Your task to perform on an android device: Add lg ultragear to the cart on costco.com Image 0: 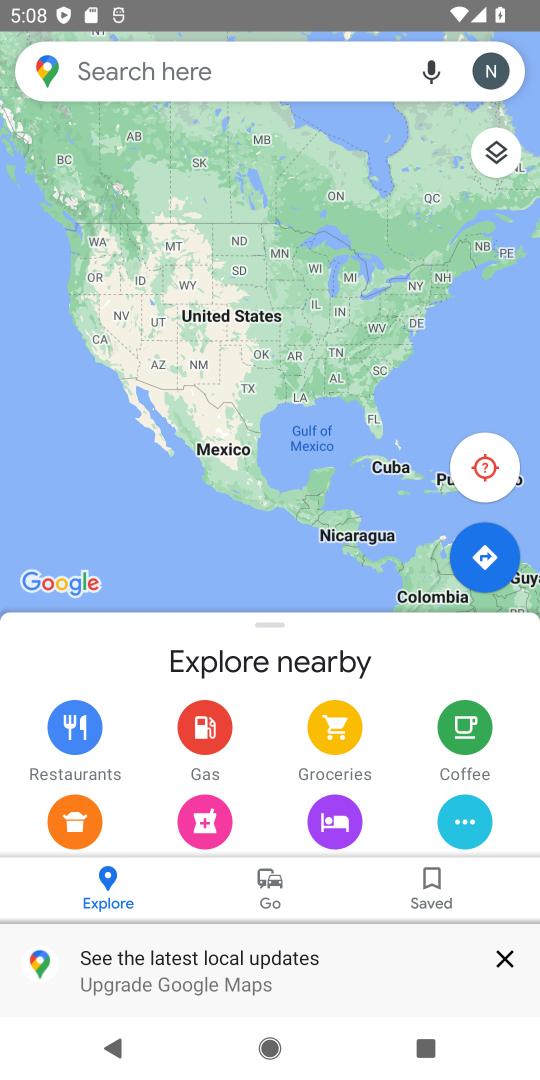
Step 0: press home button
Your task to perform on an android device: Add lg ultragear to the cart on costco.com Image 1: 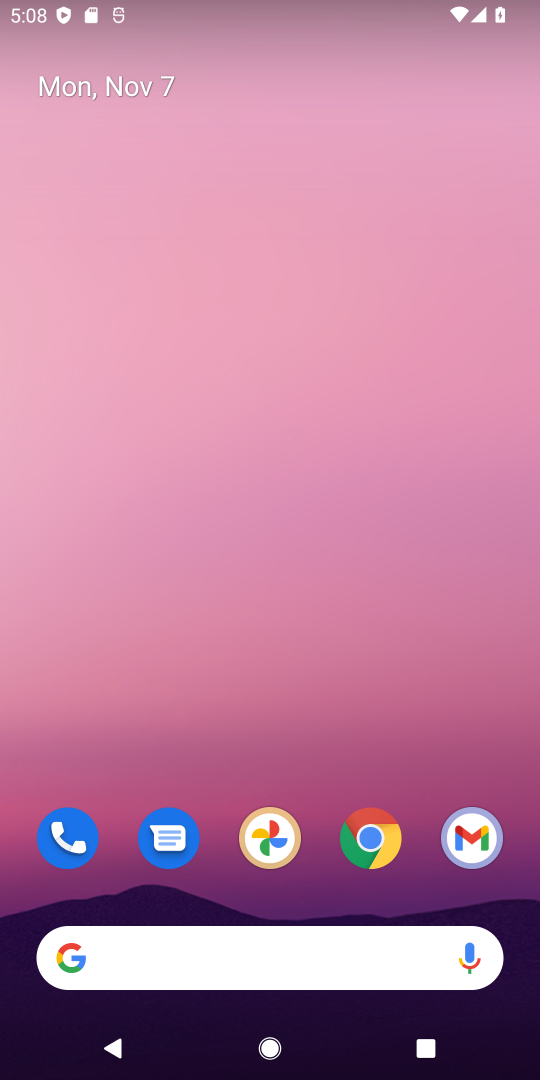
Step 1: click (346, 852)
Your task to perform on an android device: Add lg ultragear to the cart on costco.com Image 2: 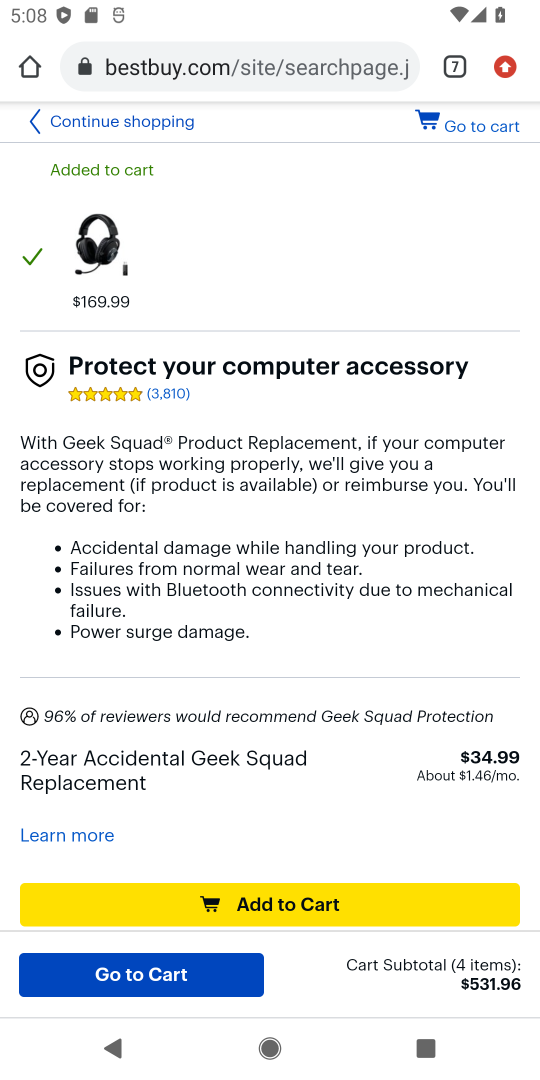
Step 2: click (457, 71)
Your task to perform on an android device: Add lg ultragear to the cart on costco.com Image 3: 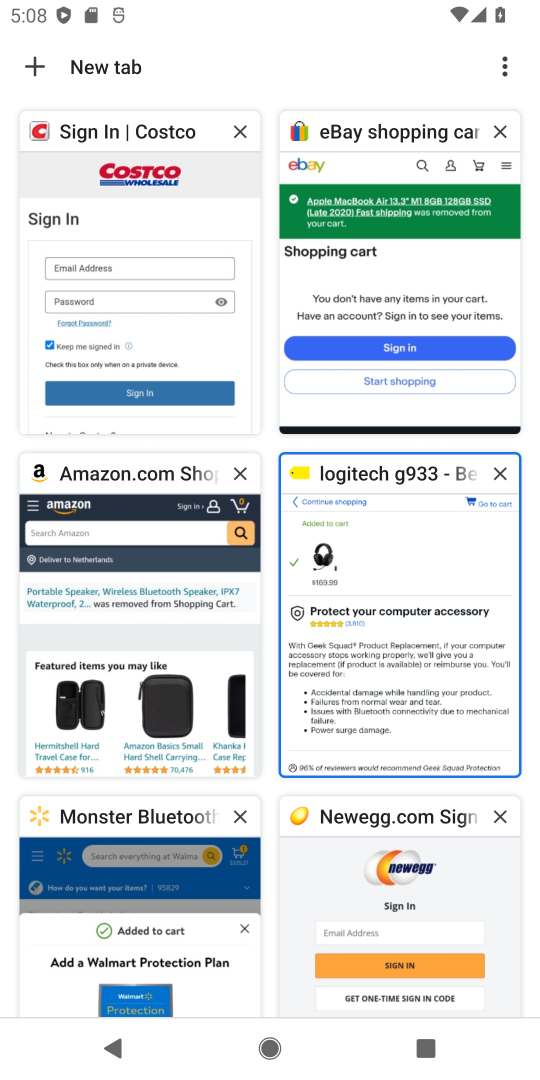
Step 3: click (141, 290)
Your task to perform on an android device: Add lg ultragear to the cart on costco.com Image 4: 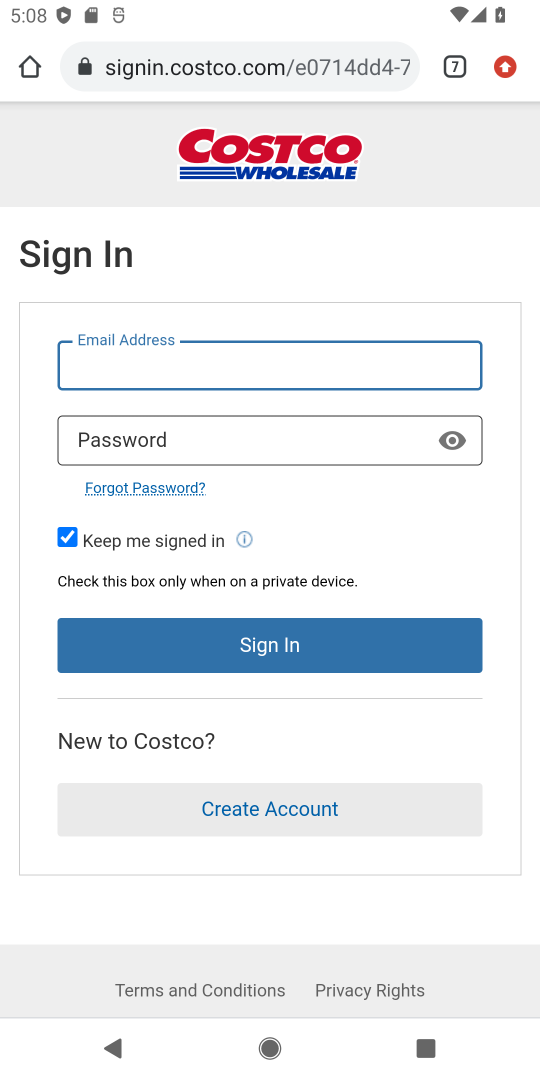
Step 4: press back button
Your task to perform on an android device: Add lg ultragear to the cart on costco.com Image 5: 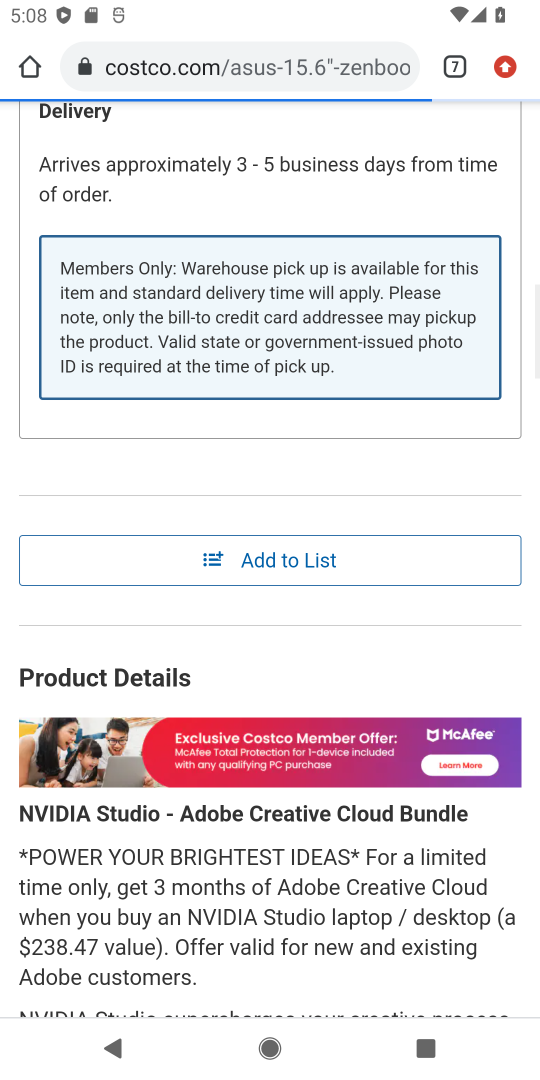
Step 5: drag from (365, 171) to (213, 1024)
Your task to perform on an android device: Add lg ultragear to the cart on costco.com Image 6: 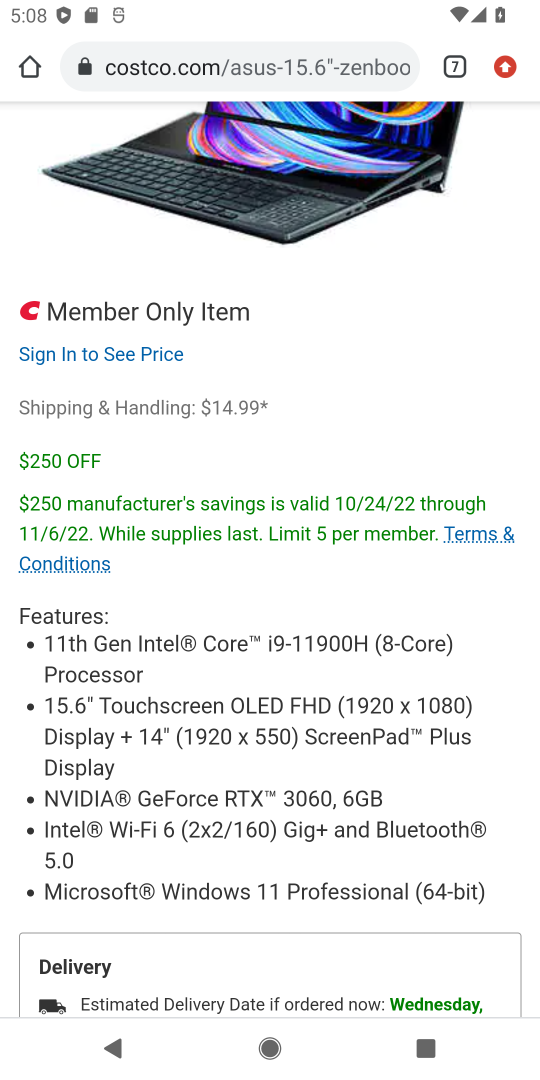
Step 6: drag from (242, 182) to (52, 1078)
Your task to perform on an android device: Add lg ultragear to the cart on costco.com Image 7: 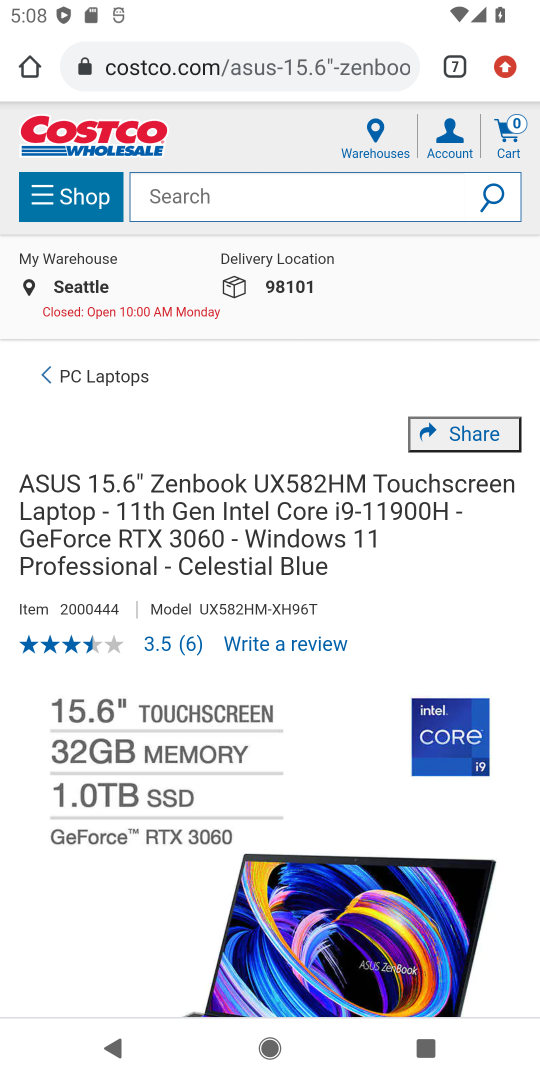
Step 7: click (203, 192)
Your task to perform on an android device: Add lg ultragear to the cart on costco.com Image 8: 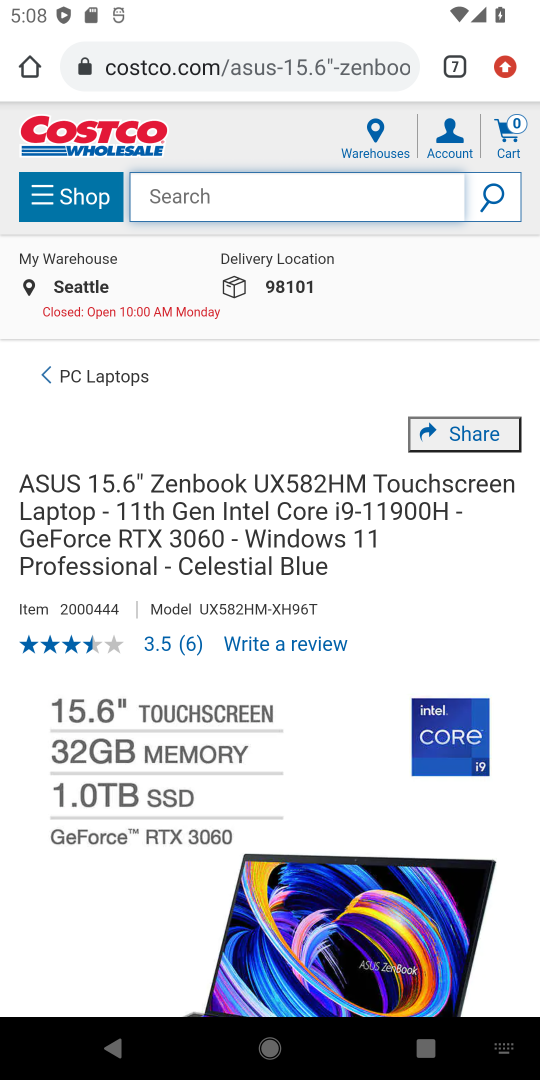
Step 8: type "lg ultragear"
Your task to perform on an android device: Add lg ultragear to the cart on costco.com Image 9: 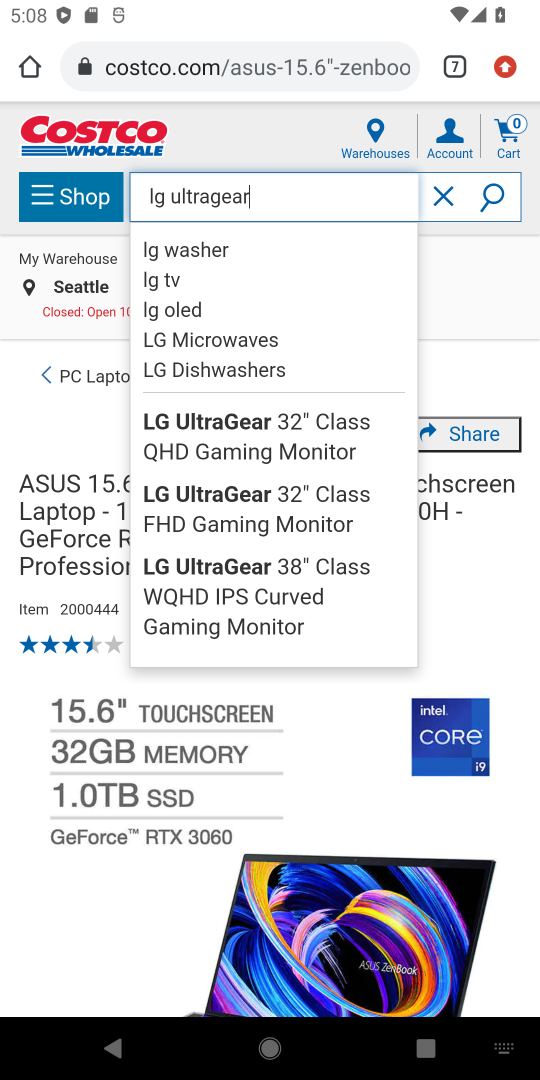
Step 9: click (192, 425)
Your task to perform on an android device: Add lg ultragear to the cart on costco.com Image 10: 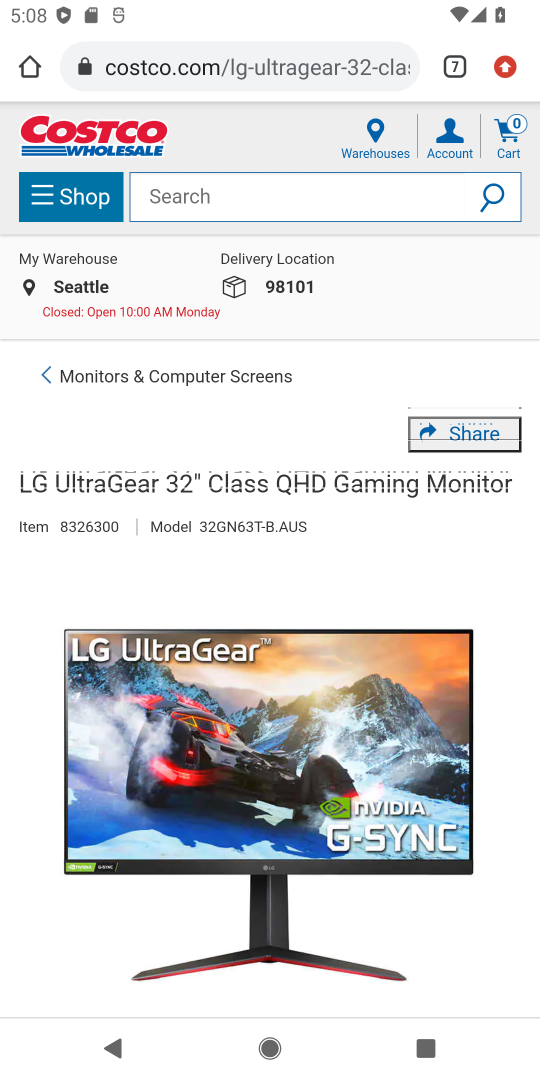
Step 10: drag from (246, 819) to (349, 294)
Your task to perform on an android device: Add lg ultragear to the cart on costco.com Image 11: 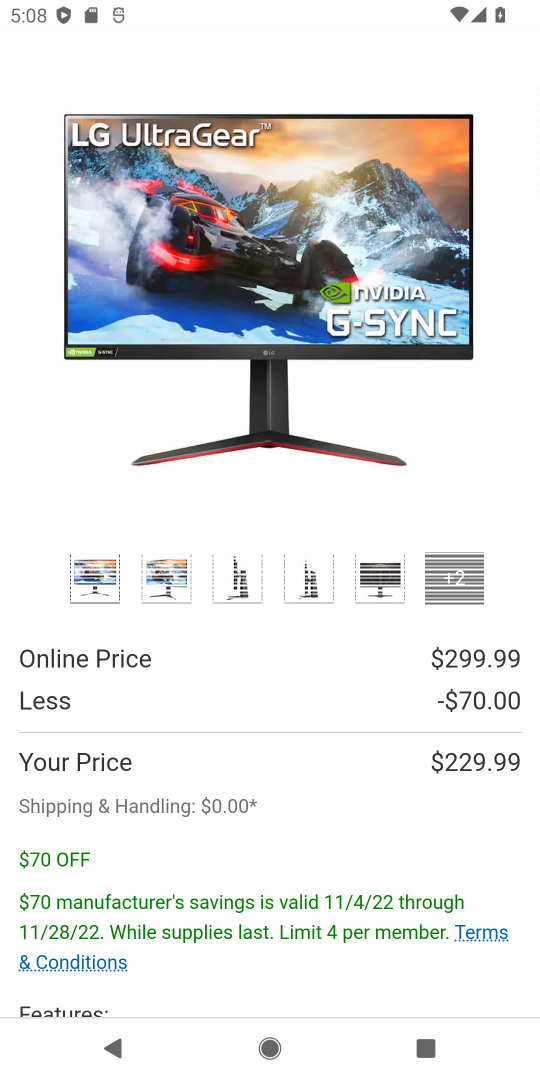
Step 11: drag from (246, 953) to (349, 362)
Your task to perform on an android device: Add lg ultragear to the cart on costco.com Image 12: 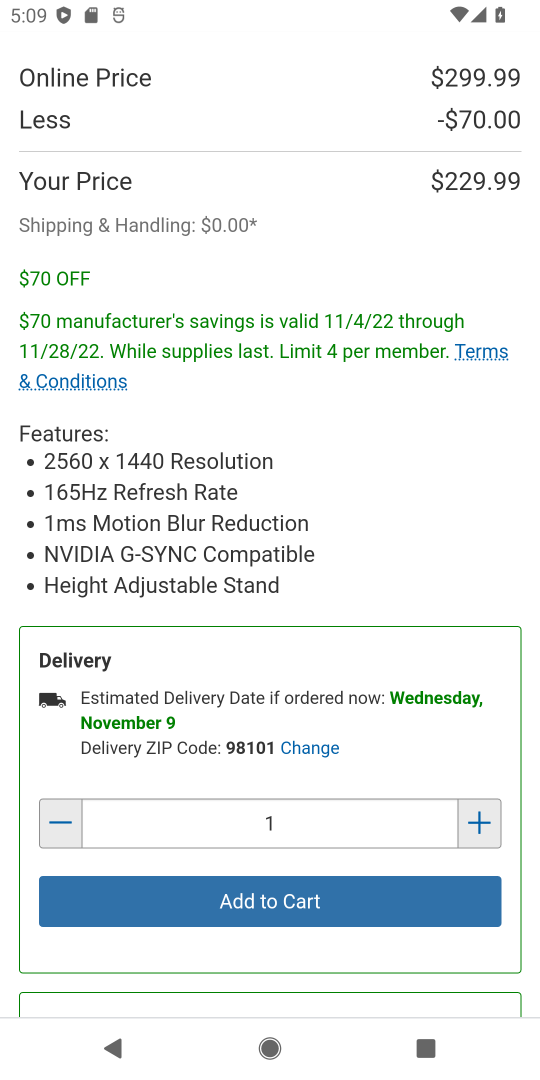
Step 12: click (296, 895)
Your task to perform on an android device: Add lg ultragear to the cart on costco.com Image 13: 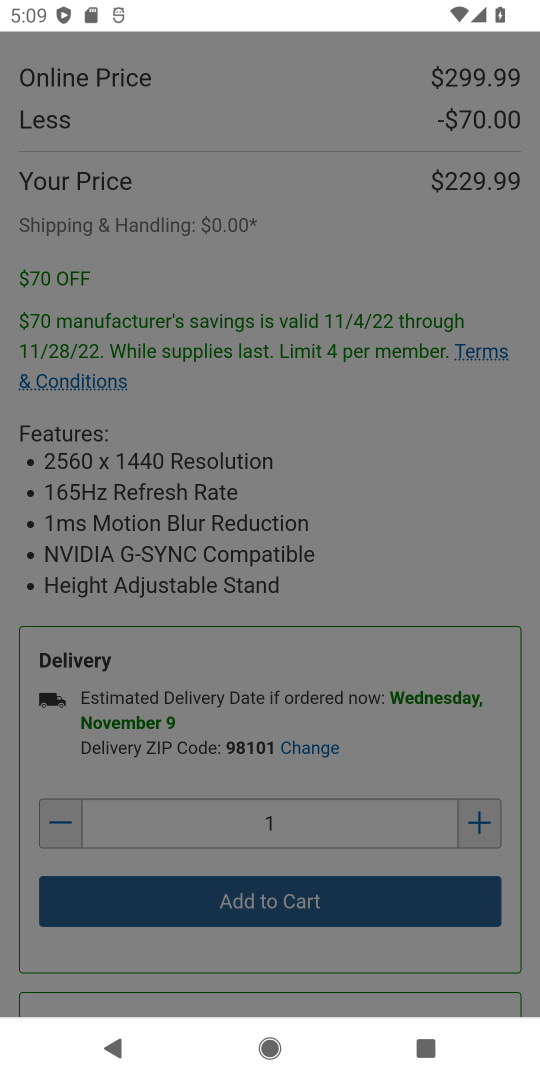
Step 13: task complete